Your task to perform on an android device: Open Reddit.com Image 0: 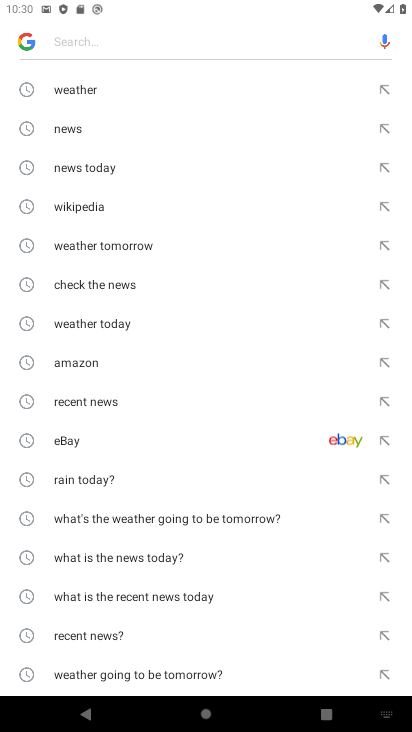
Step 0: press back button
Your task to perform on an android device: Open Reddit.com Image 1: 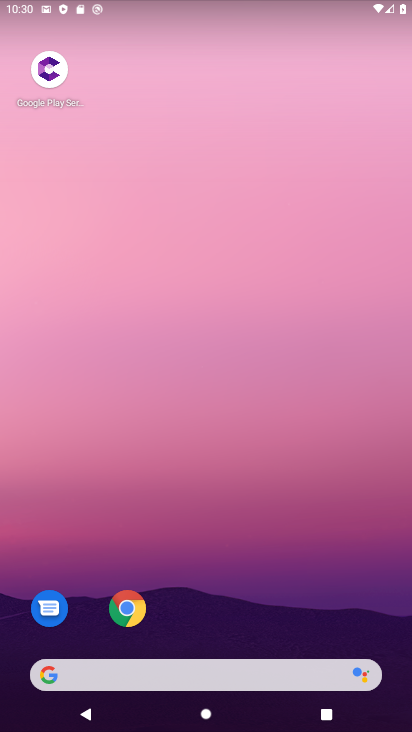
Step 1: click (131, 619)
Your task to perform on an android device: Open Reddit.com Image 2: 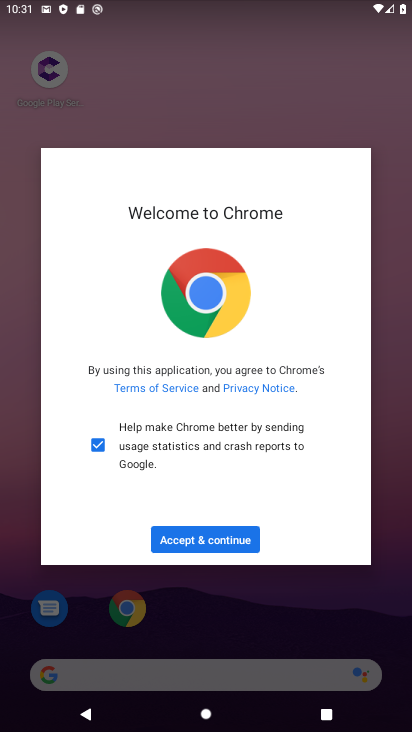
Step 2: click (190, 540)
Your task to perform on an android device: Open Reddit.com Image 3: 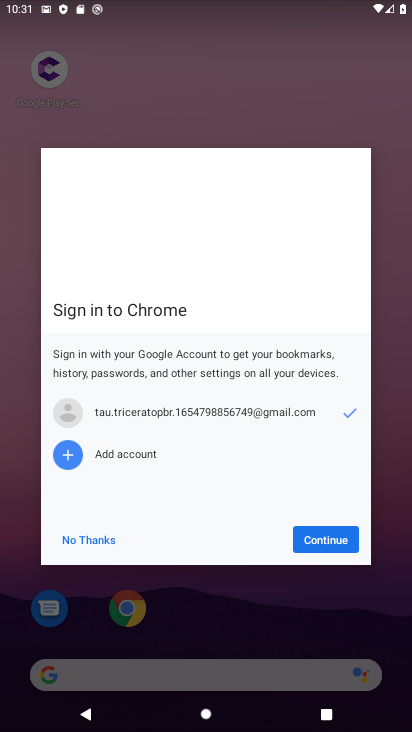
Step 3: click (338, 530)
Your task to perform on an android device: Open Reddit.com Image 4: 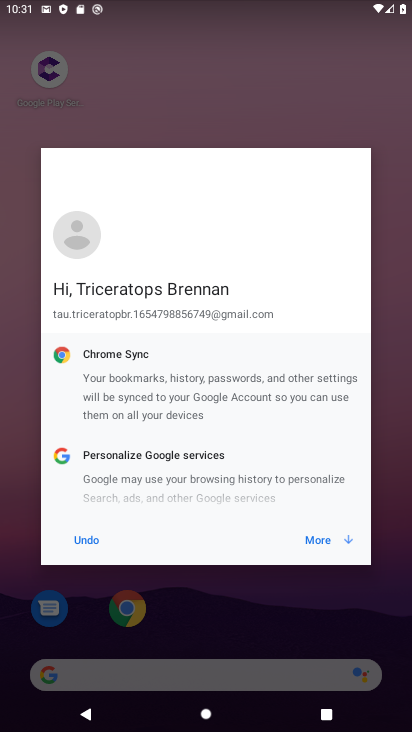
Step 4: click (320, 536)
Your task to perform on an android device: Open Reddit.com Image 5: 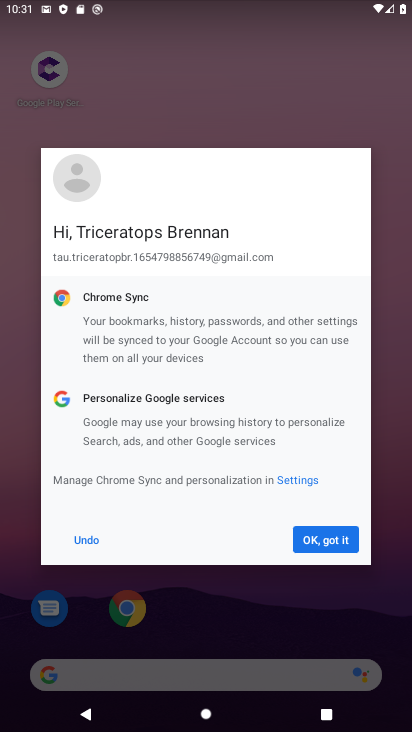
Step 5: click (320, 536)
Your task to perform on an android device: Open Reddit.com Image 6: 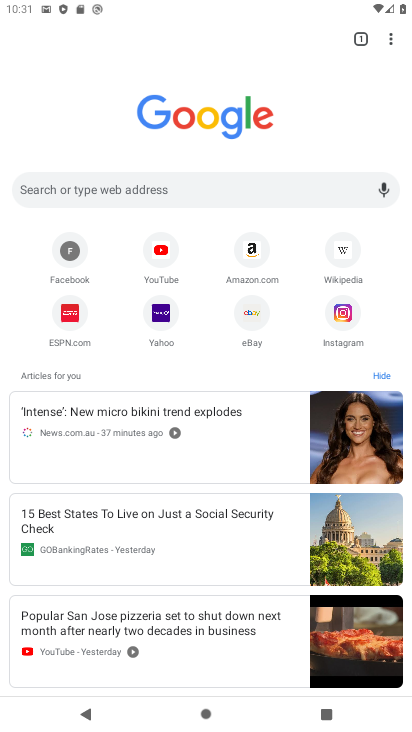
Step 6: click (151, 186)
Your task to perform on an android device: Open Reddit.com Image 7: 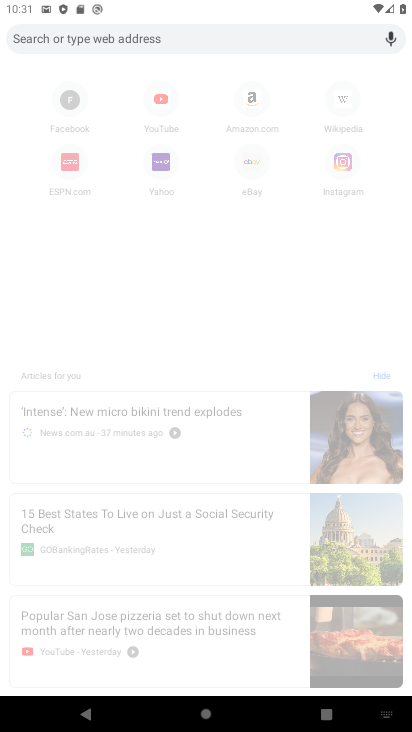
Step 7: type "www.reddit.com"
Your task to perform on an android device: Open Reddit.com Image 8: 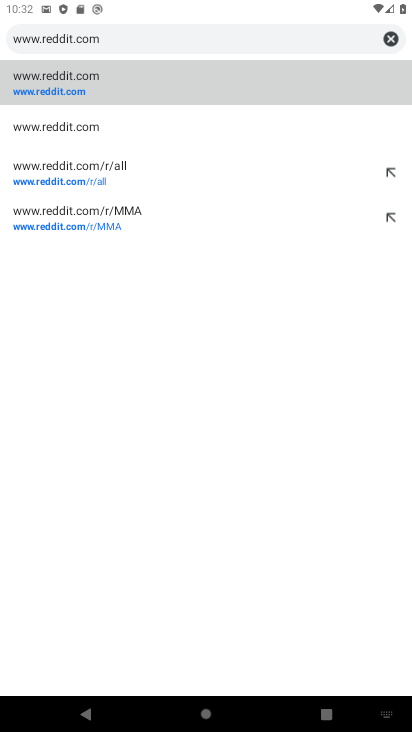
Step 8: click (59, 82)
Your task to perform on an android device: Open Reddit.com Image 9: 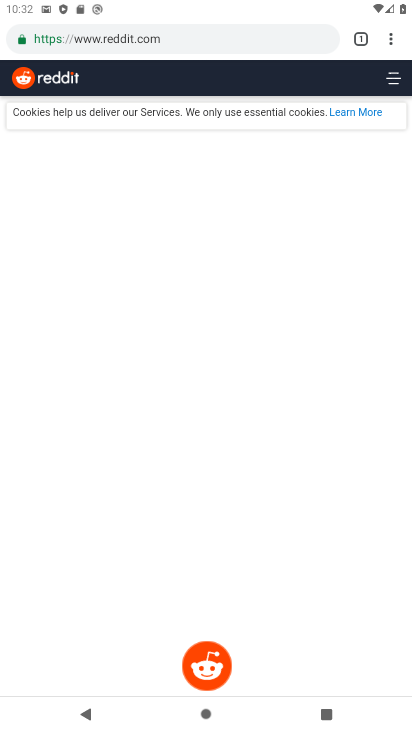
Step 9: task complete